Your task to perform on an android device: turn on the 24-hour format for clock Image 0: 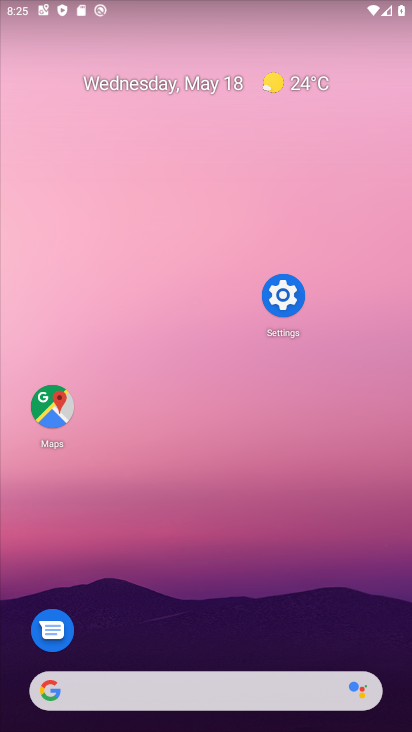
Step 0: drag from (187, 671) to (218, 345)
Your task to perform on an android device: turn on the 24-hour format for clock Image 1: 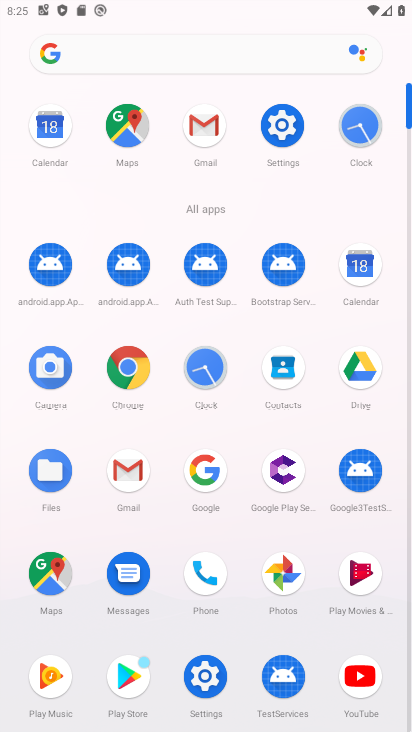
Step 1: click (357, 124)
Your task to perform on an android device: turn on the 24-hour format for clock Image 2: 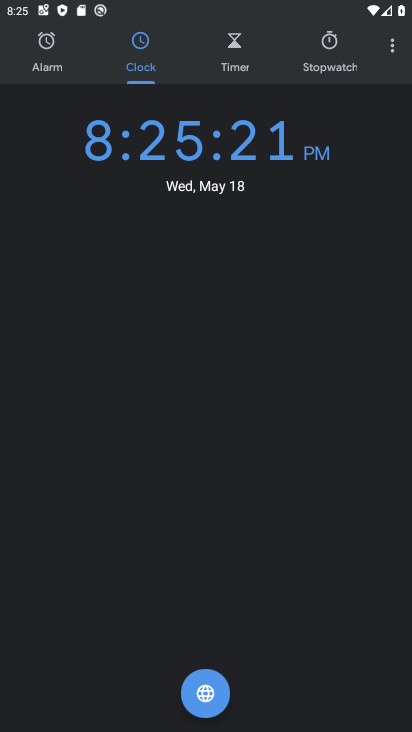
Step 2: click (398, 42)
Your task to perform on an android device: turn on the 24-hour format for clock Image 3: 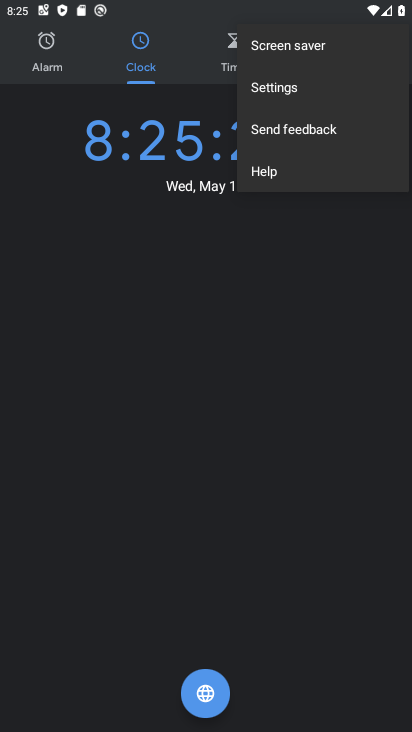
Step 3: click (265, 82)
Your task to perform on an android device: turn on the 24-hour format for clock Image 4: 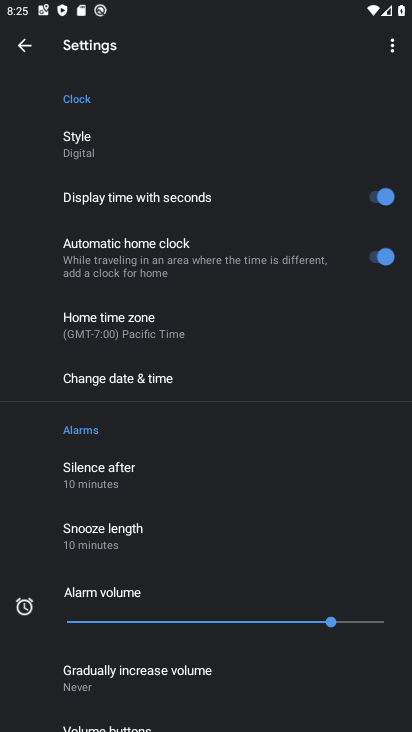
Step 4: click (111, 376)
Your task to perform on an android device: turn on the 24-hour format for clock Image 5: 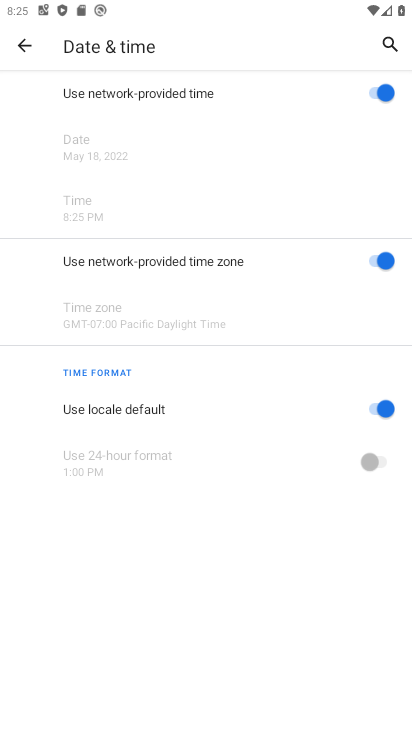
Step 5: click (385, 460)
Your task to perform on an android device: turn on the 24-hour format for clock Image 6: 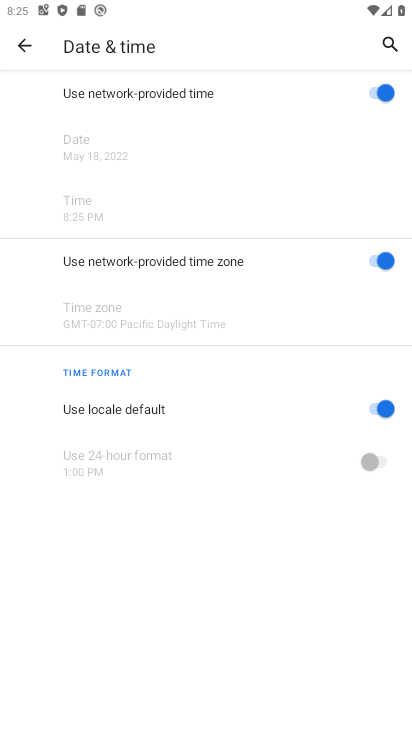
Step 6: click (376, 463)
Your task to perform on an android device: turn on the 24-hour format for clock Image 7: 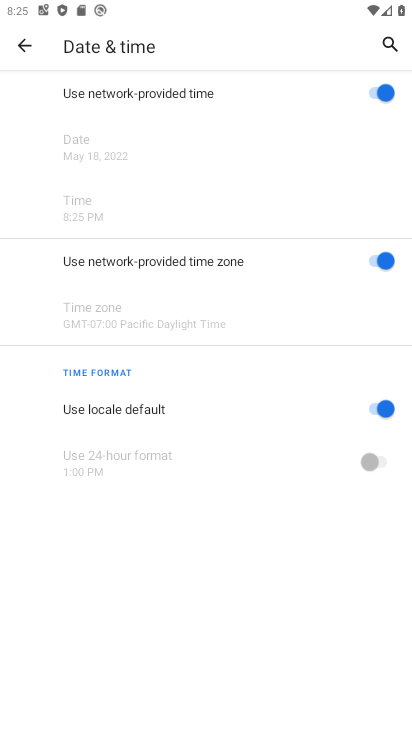
Step 7: click (375, 408)
Your task to perform on an android device: turn on the 24-hour format for clock Image 8: 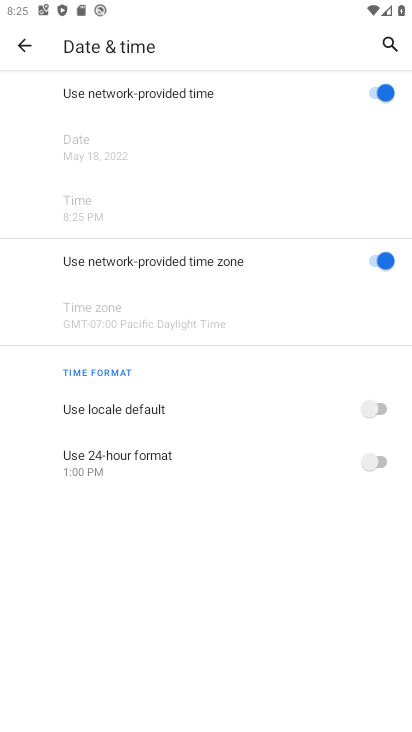
Step 8: click (387, 463)
Your task to perform on an android device: turn on the 24-hour format for clock Image 9: 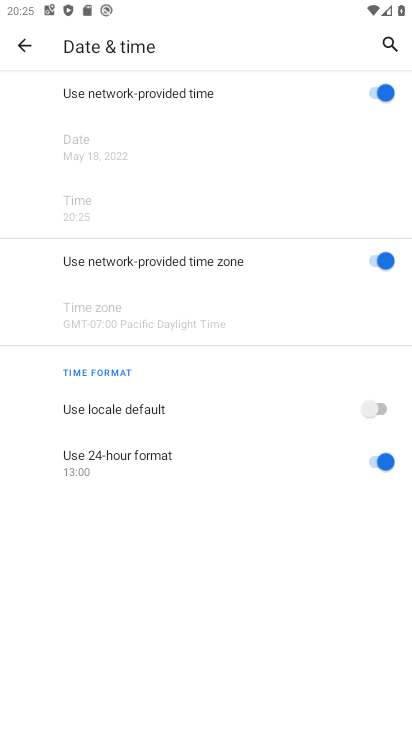
Step 9: task complete